Your task to perform on an android device: Search for pizza restaurants on Maps Image 0: 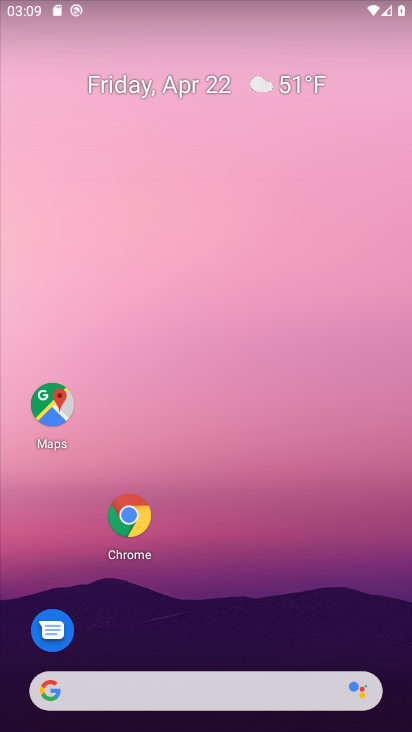
Step 0: drag from (364, 610) to (366, 142)
Your task to perform on an android device: Search for pizza restaurants on Maps Image 1: 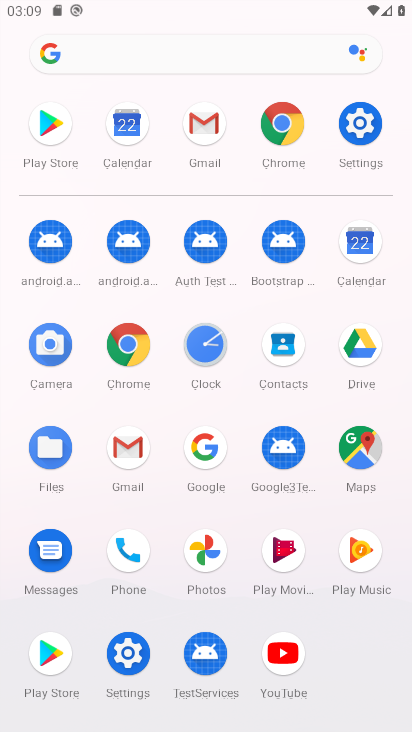
Step 1: click (351, 442)
Your task to perform on an android device: Search for pizza restaurants on Maps Image 2: 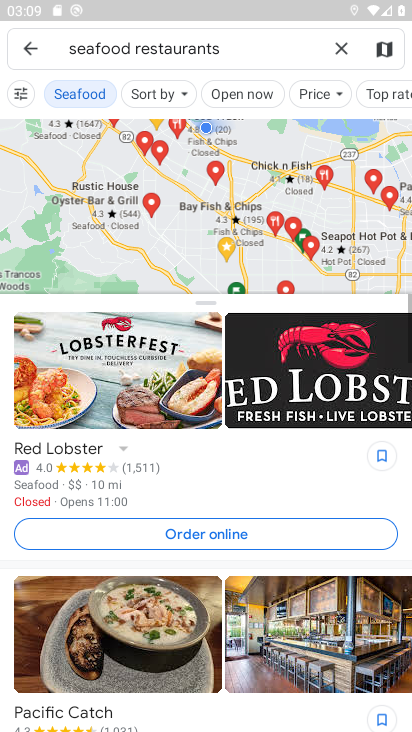
Step 2: click (344, 49)
Your task to perform on an android device: Search for pizza restaurants on Maps Image 3: 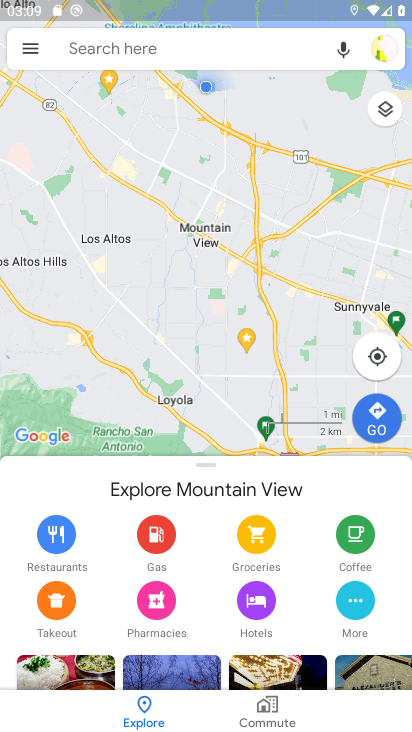
Step 3: click (114, 41)
Your task to perform on an android device: Search for pizza restaurants on Maps Image 4: 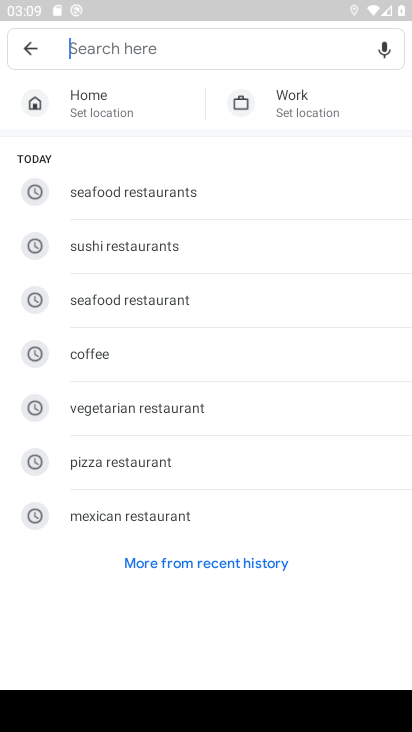
Step 4: type "pizza restaurants"
Your task to perform on an android device: Search for pizza restaurants on Maps Image 5: 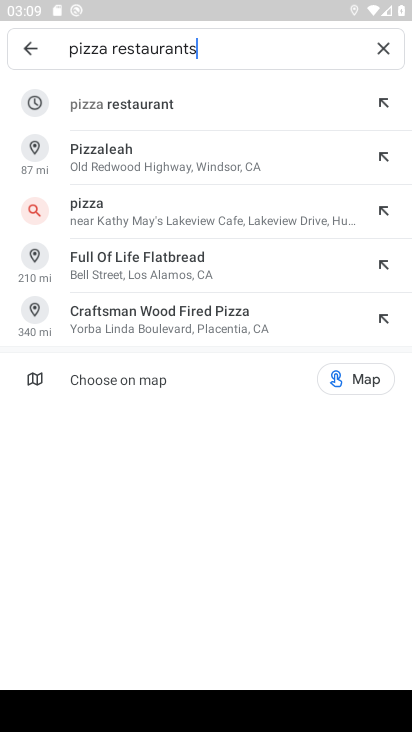
Step 5: click (115, 107)
Your task to perform on an android device: Search for pizza restaurants on Maps Image 6: 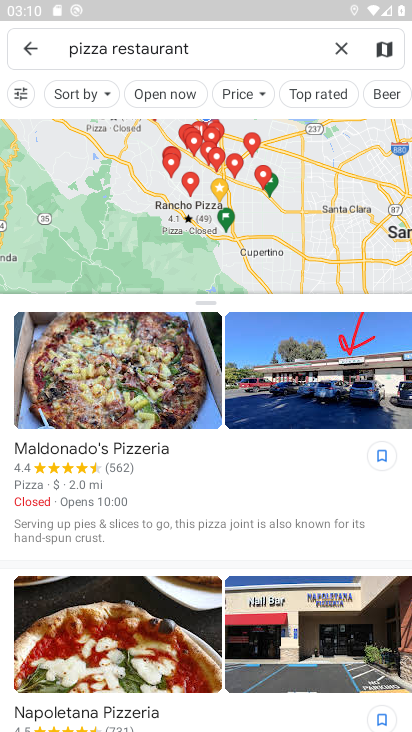
Step 6: task complete